Your task to perform on an android device: turn off data saver in the chrome app Image 0: 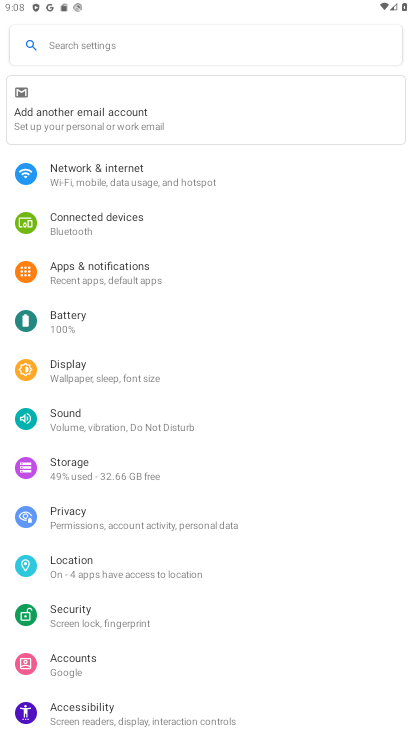
Step 0: press home button
Your task to perform on an android device: turn off data saver in the chrome app Image 1: 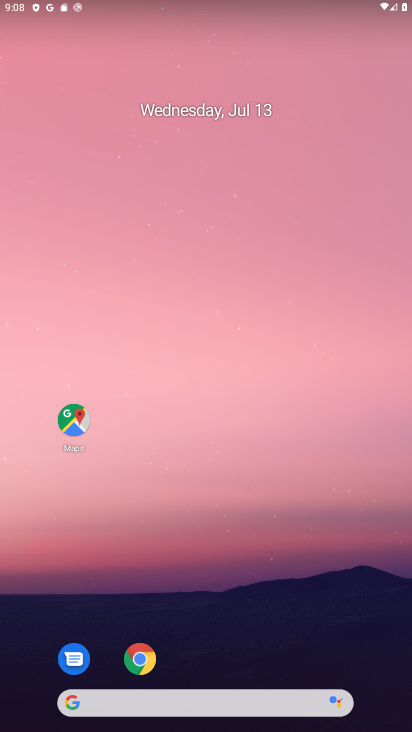
Step 1: drag from (233, 634) to (257, 170)
Your task to perform on an android device: turn off data saver in the chrome app Image 2: 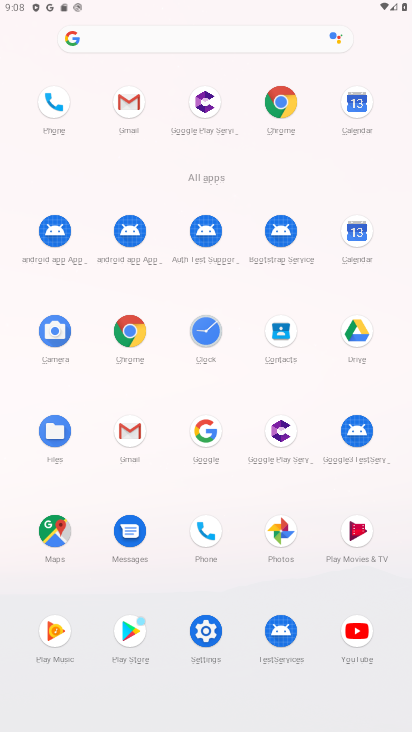
Step 2: click (278, 98)
Your task to perform on an android device: turn off data saver in the chrome app Image 3: 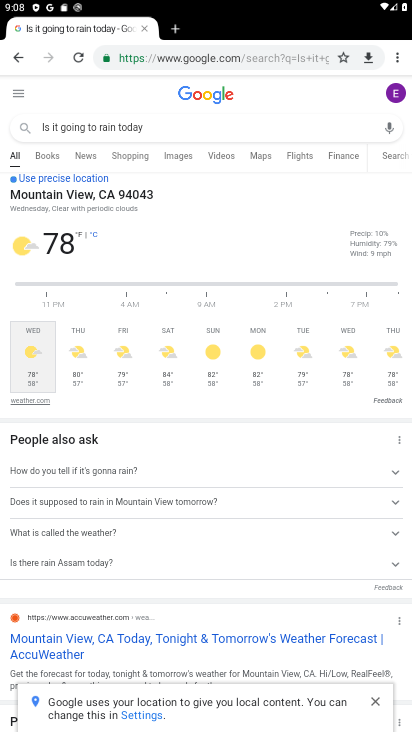
Step 3: click (392, 51)
Your task to perform on an android device: turn off data saver in the chrome app Image 4: 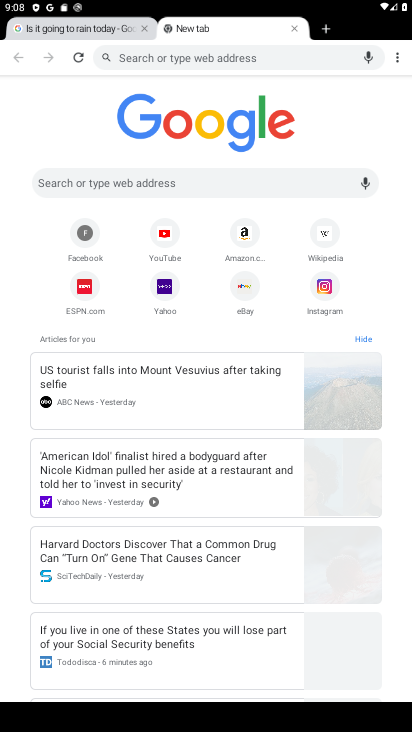
Step 4: click (396, 55)
Your task to perform on an android device: turn off data saver in the chrome app Image 5: 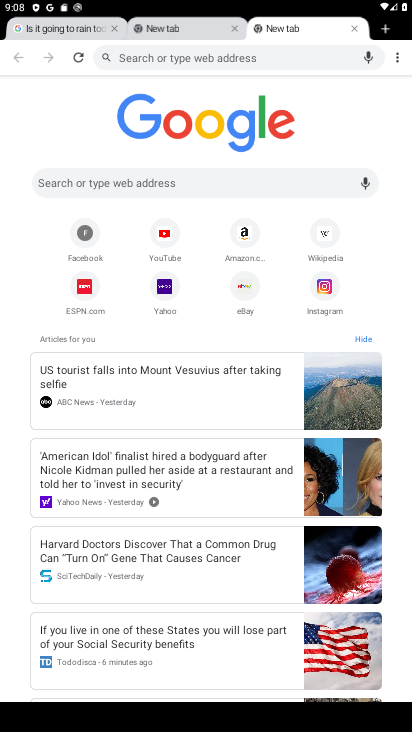
Step 5: click (392, 59)
Your task to perform on an android device: turn off data saver in the chrome app Image 6: 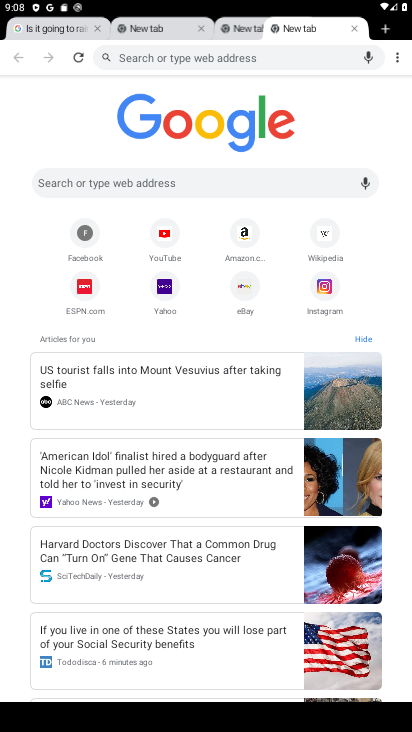
Step 6: click (404, 53)
Your task to perform on an android device: turn off data saver in the chrome app Image 7: 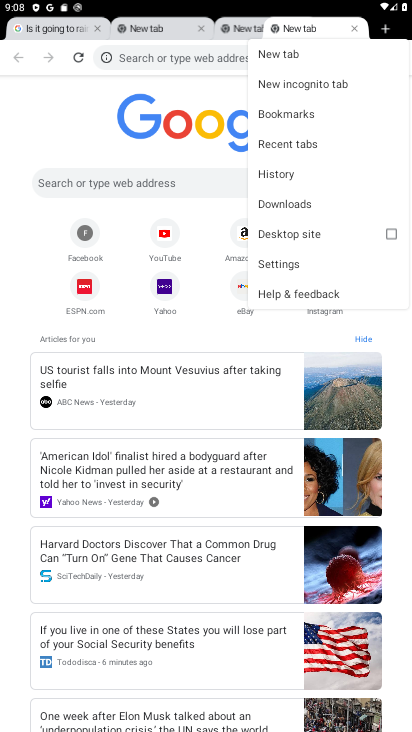
Step 7: click (308, 267)
Your task to perform on an android device: turn off data saver in the chrome app Image 8: 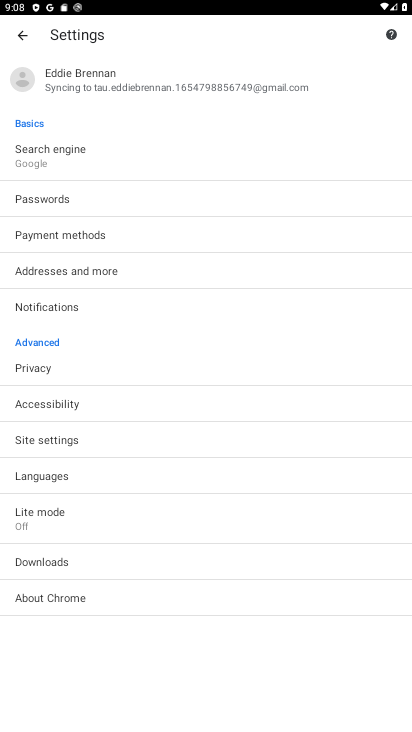
Step 8: click (80, 511)
Your task to perform on an android device: turn off data saver in the chrome app Image 9: 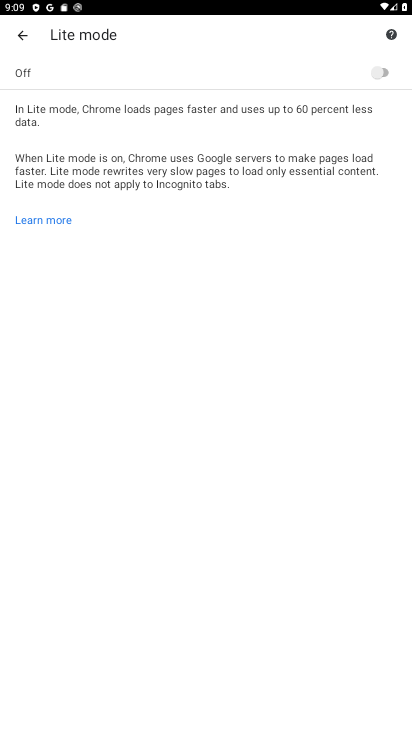
Step 9: task complete